Your task to perform on an android device: Open calendar and show me the third week of next month Image 0: 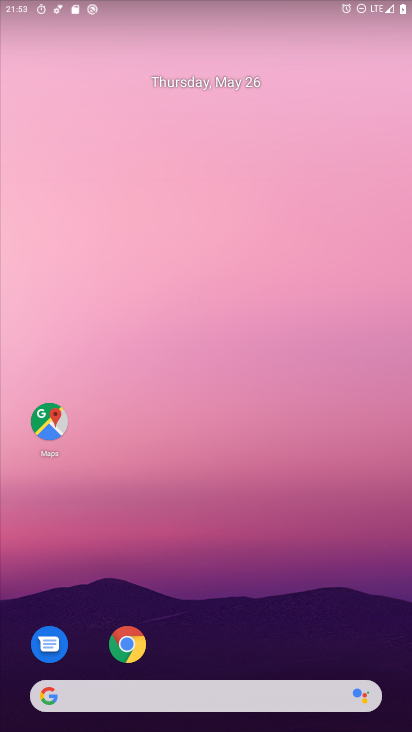
Step 0: drag from (174, 652) to (210, 121)
Your task to perform on an android device: Open calendar and show me the third week of next month Image 1: 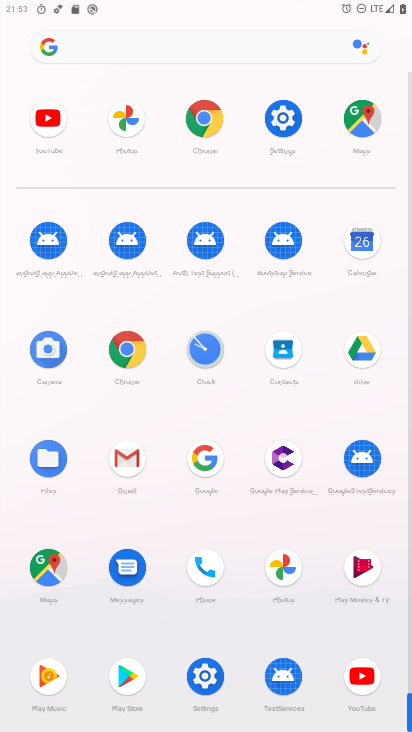
Step 1: click (366, 242)
Your task to perform on an android device: Open calendar and show me the third week of next month Image 2: 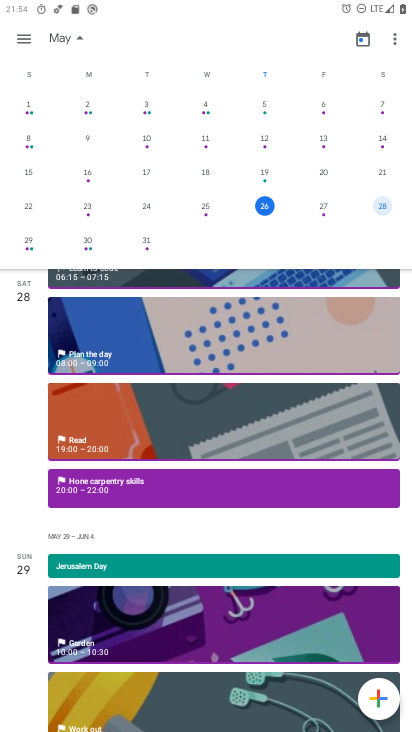
Step 2: drag from (239, 542) to (267, 168)
Your task to perform on an android device: Open calendar and show me the third week of next month Image 3: 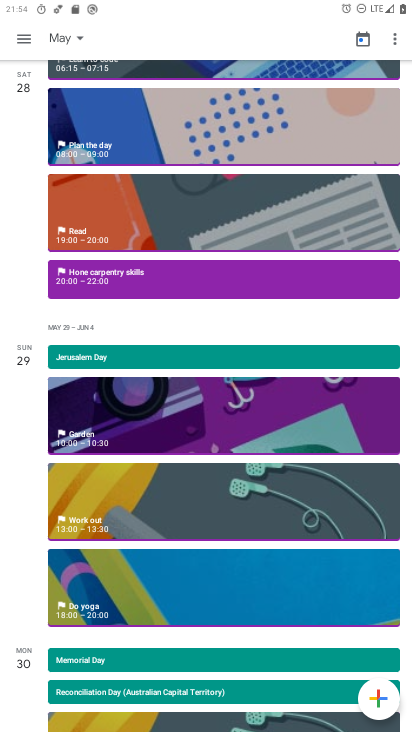
Step 3: drag from (277, 53) to (237, 628)
Your task to perform on an android device: Open calendar and show me the third week of next month Image 4: 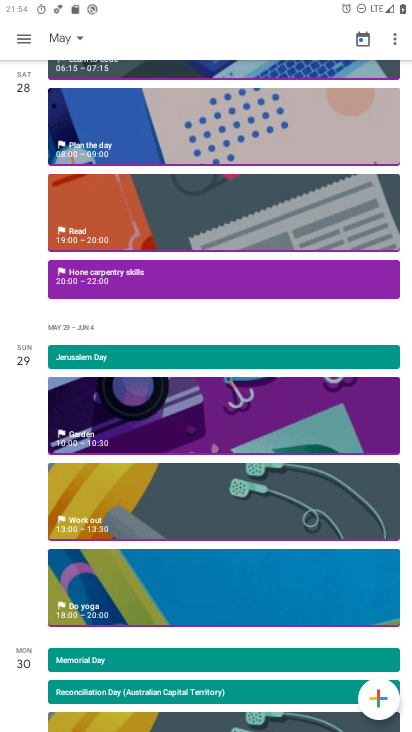
Step 4: click (72, 40)
Your task to perform on an android device: Open calendar and show me the third week of next month Image 5: 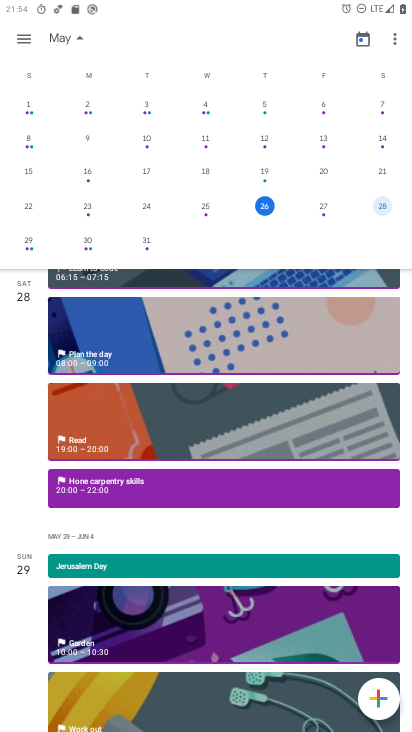
Step 5: drag from (375, 147) to (107, 157)
Your task to perform on an android device: Open calendar and show me the third week of next month Image 6: 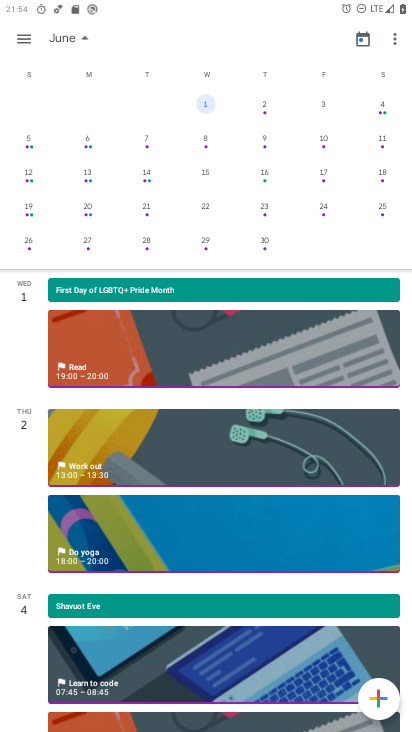
Step 6: click (197, 171)
Your task to perform on an android device: Open calendar and show me the third week of next month Image 7: 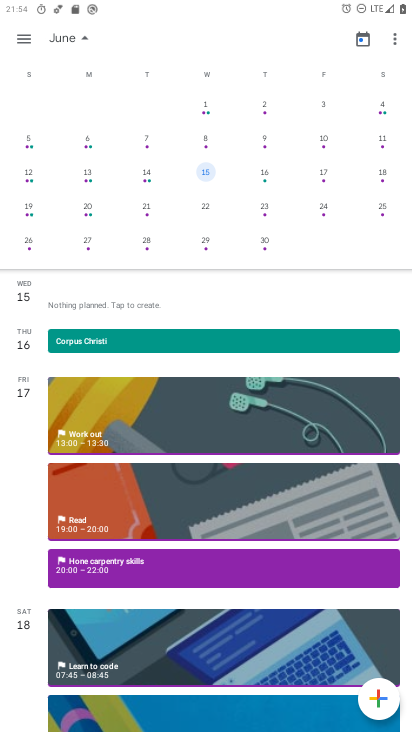
Step 7: task complete